Your task to perform on an android device: set an alarm Image 0: 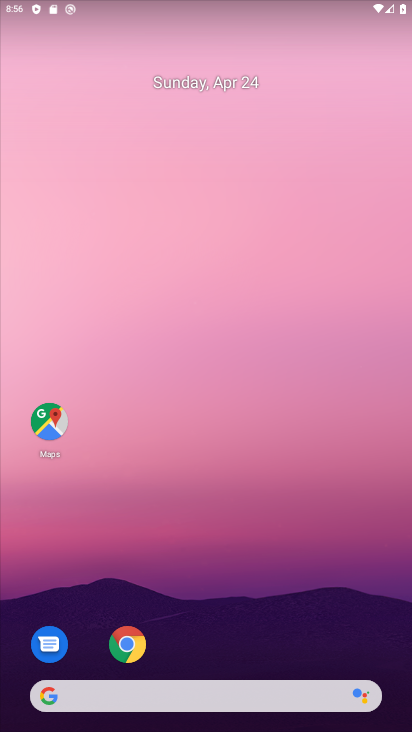
Step 0: drag from (234, 672) to (214, 22)
Your task to perform on an android device: set an alarm Image 1: 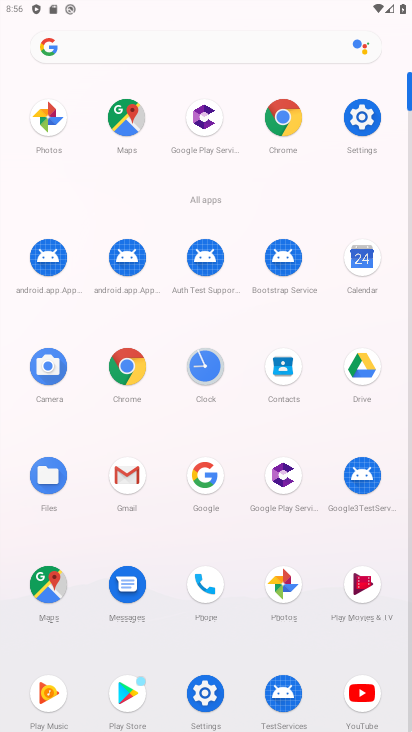
Step 1: click (211, 383)
Your task to perform on an android device: set an alarm Image 2: 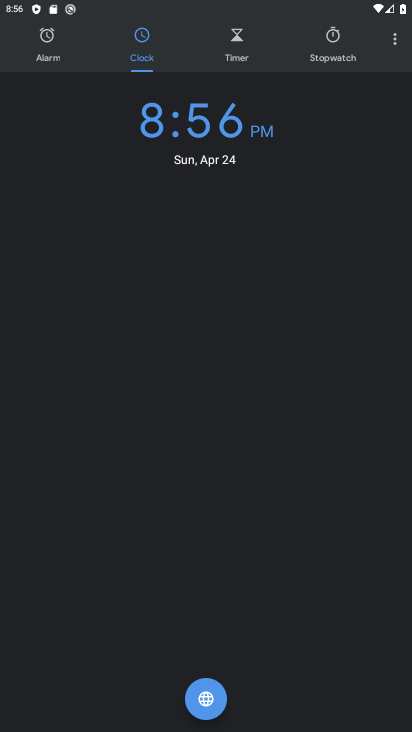
Step 2: click (39, 45)
Your task to perform on an android device: set an alarm Image 3: 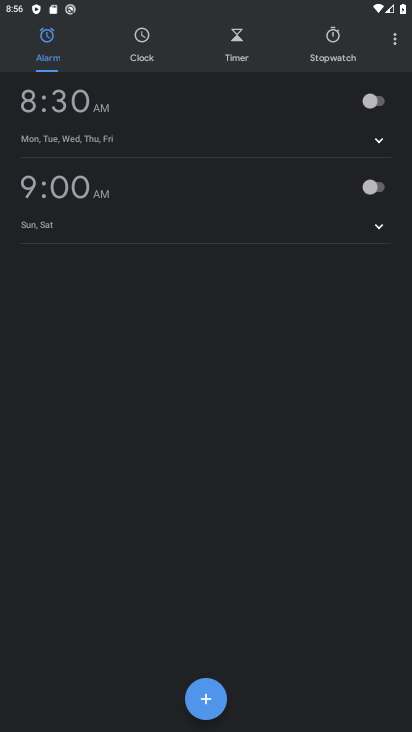
Step 3: click (210, 711)
Your task to perform on an android device: set an alarm Image 4: 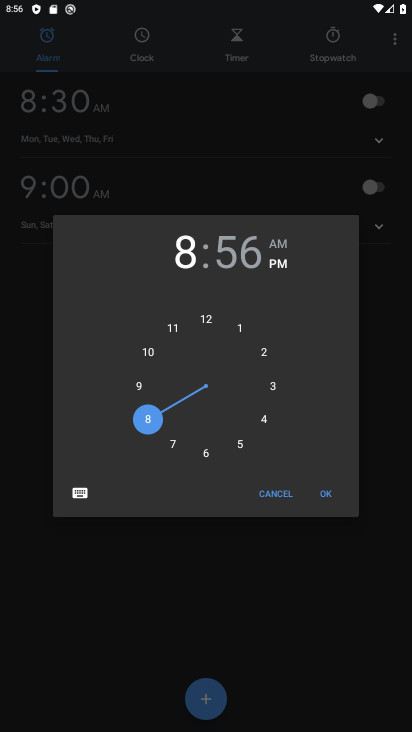
Step 4: click (314, 495)
Your task to perform on an android device: set an alarm Image 5: 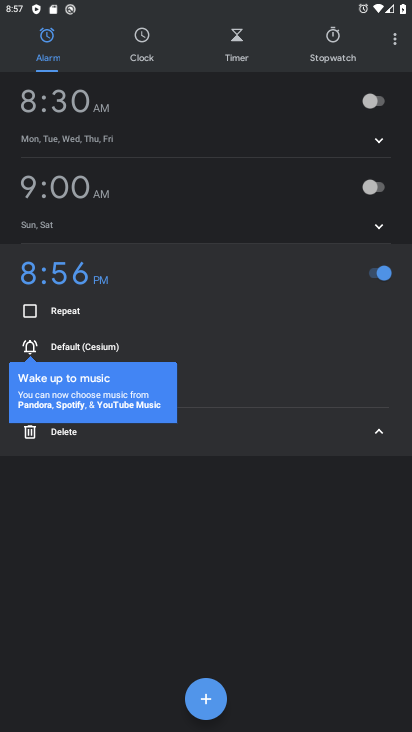
Step 5: task complete